Your task to perform on an android device: Open internet settings Image 0: 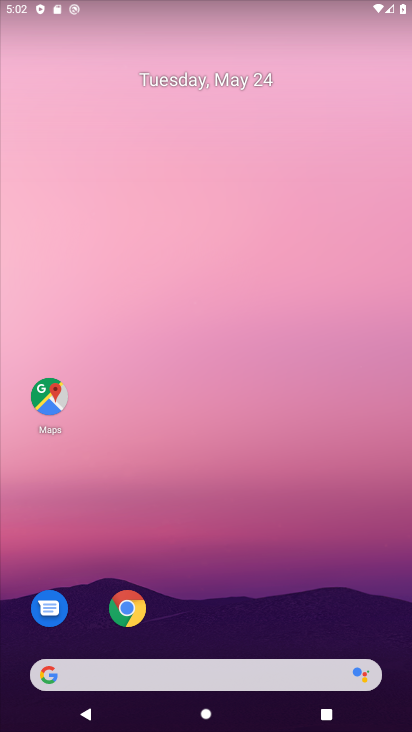
Step 0: drag from (203, 578) to (285, 110)
Your task to perform on an android device: Open internet settings Image 1: 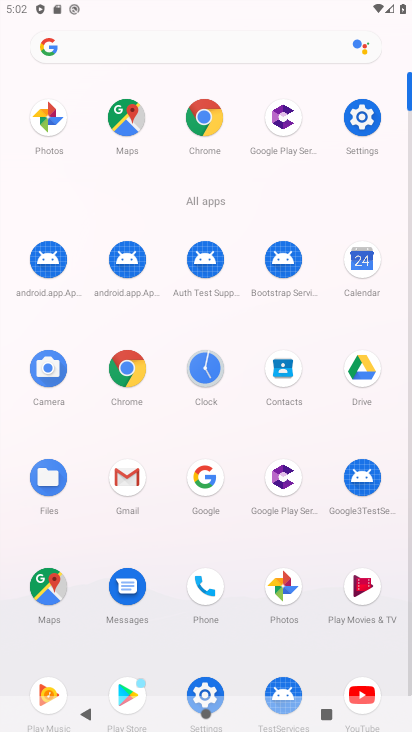
Step 1: click (368, 130)
Your task to perform on an android device: Open internet settings Image 2: 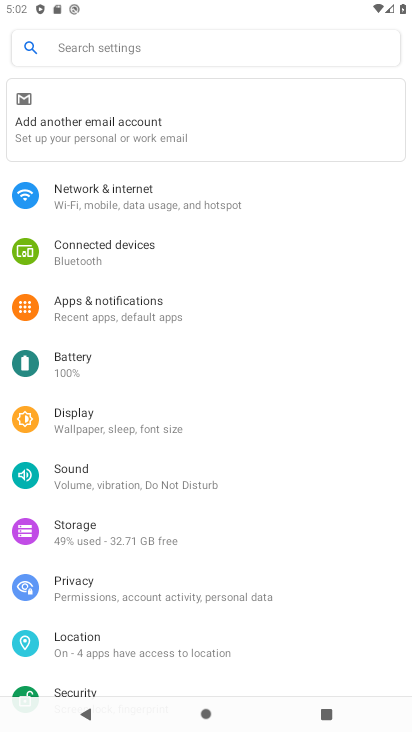
Step 2: click (156, 133)
Your task to perform on an android device: Open internet settings Image 3: 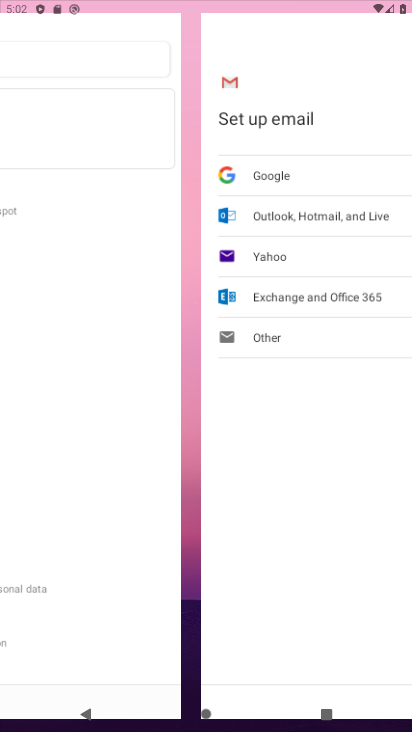
Step 3: click (146, 199)
Your task to perform on an android device: Open internet settings Image 4: 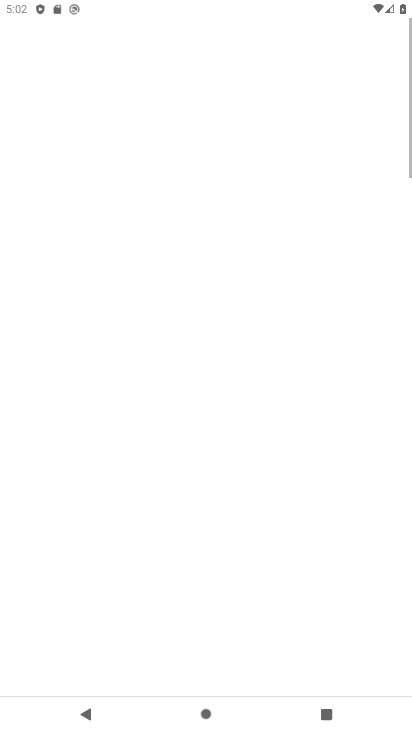
Step 4: press back button
Your task to perform on an android device: Open internet settings Image 5: 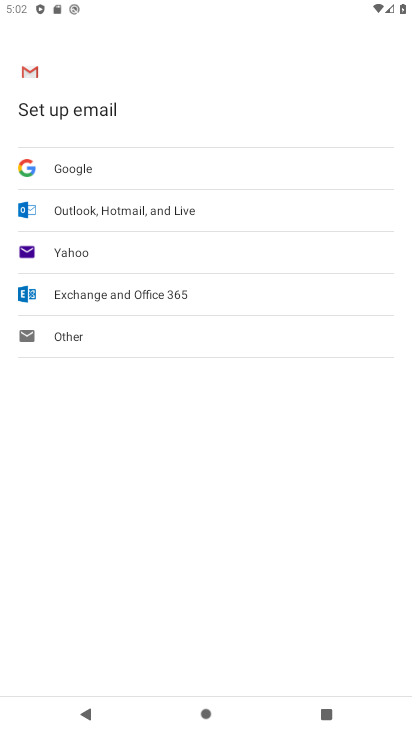
Step 5: press back button
Your task to perform on an android device: Open internet settings Image 6: 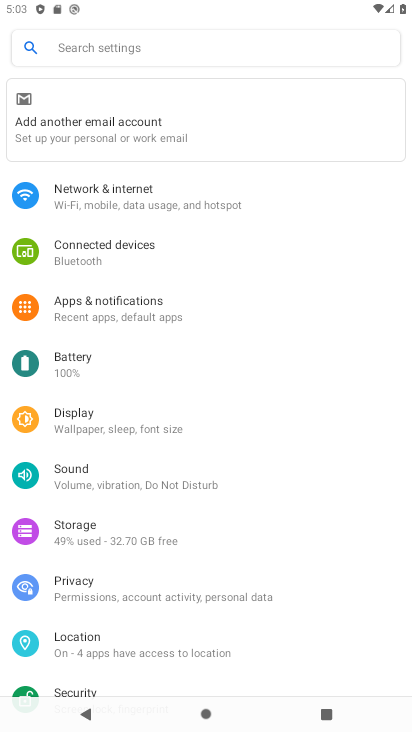
Step 6: click (176, 208)
Your task to perform on an android device: Open internet settings Image 7: 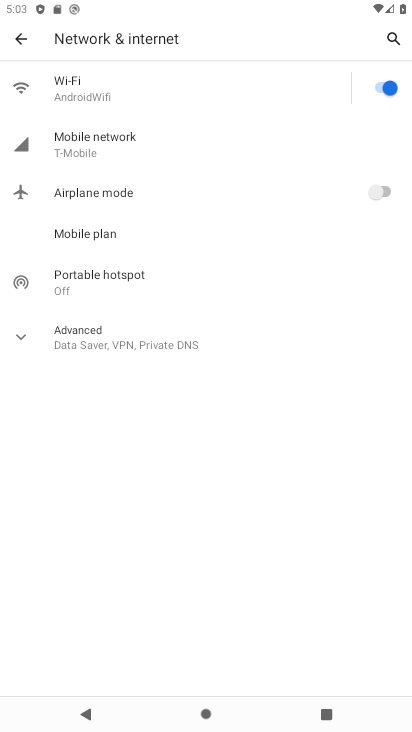
Step 7: task complete